Your task to perform on an android device: turn pop-ups on in chrome Image 0: 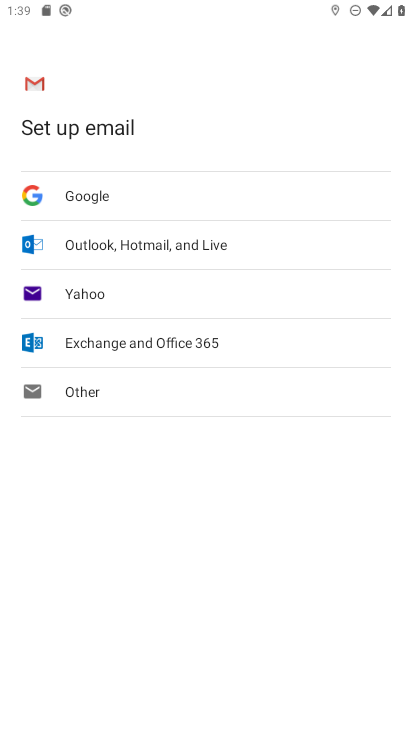
Step 0: press home button
Your task to perform on an android device: turn pop-ups on in chrome Image 1: 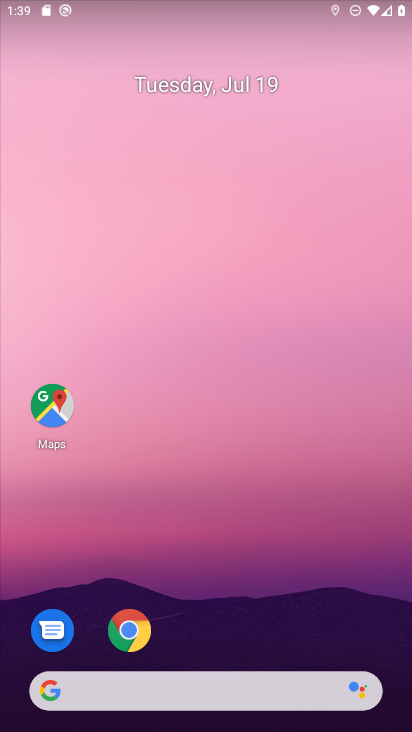
Step 1: click (129, 632)
Your task to perform on an android device: turn pop-ups on in chrome Image 2: 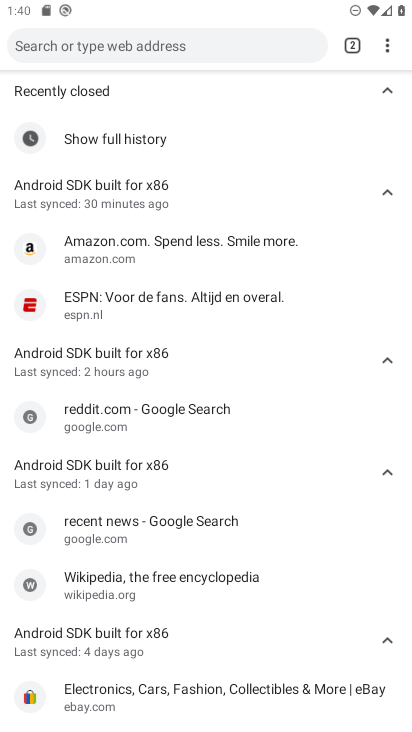
Step 2: drag from (384, 45) to (284, 377)
Your task to perform on an android device: turn pop-ups on in chrome Image 3: 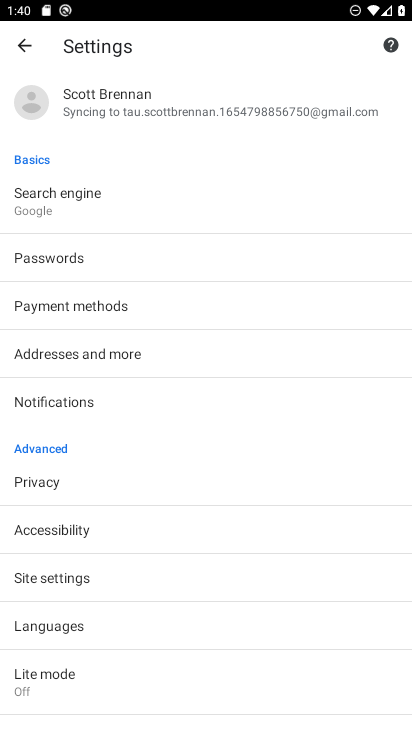
Step 3: click (59, 574)
Your task to perform on an android device: turn pop-ups on in chrome Image 4: 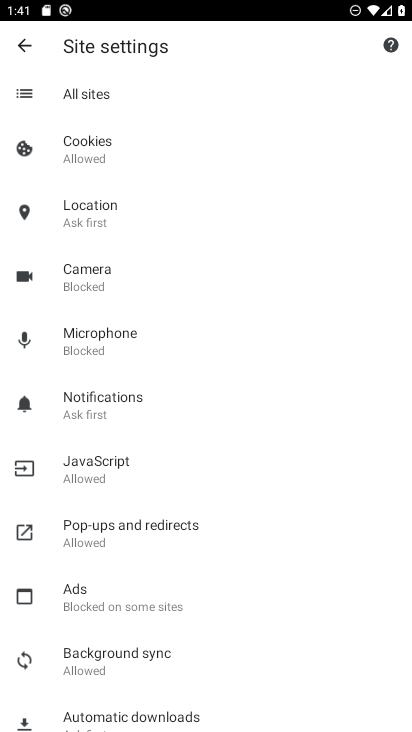
Step 4: click (126, 535)
Your task to perform on an android device: turn pop-ups on in chrome Image 5: 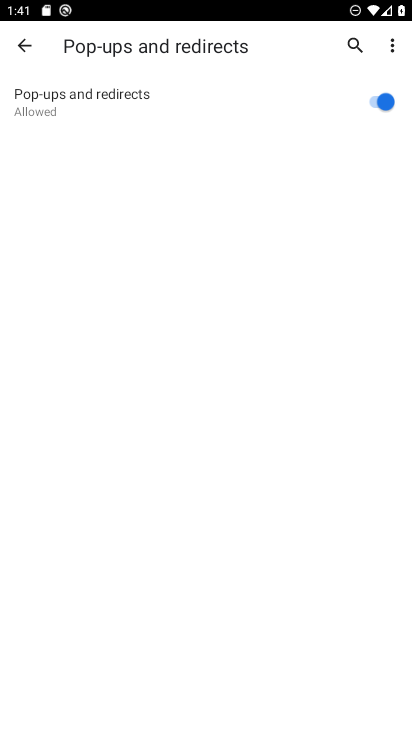
Step 5: task complete